Your task to perform on an android device: move an email to a new category in the gmail app Image 0: 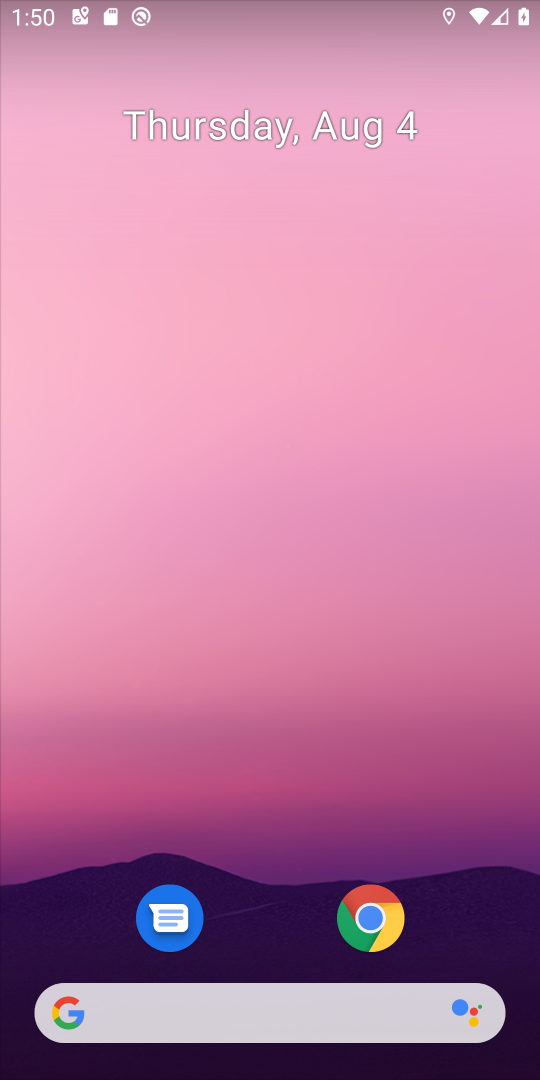
Step 0: drag from (298, 857) to (306, 305)
Your task to perform on an android device: move an email to a new category in the gmail app Image 1: 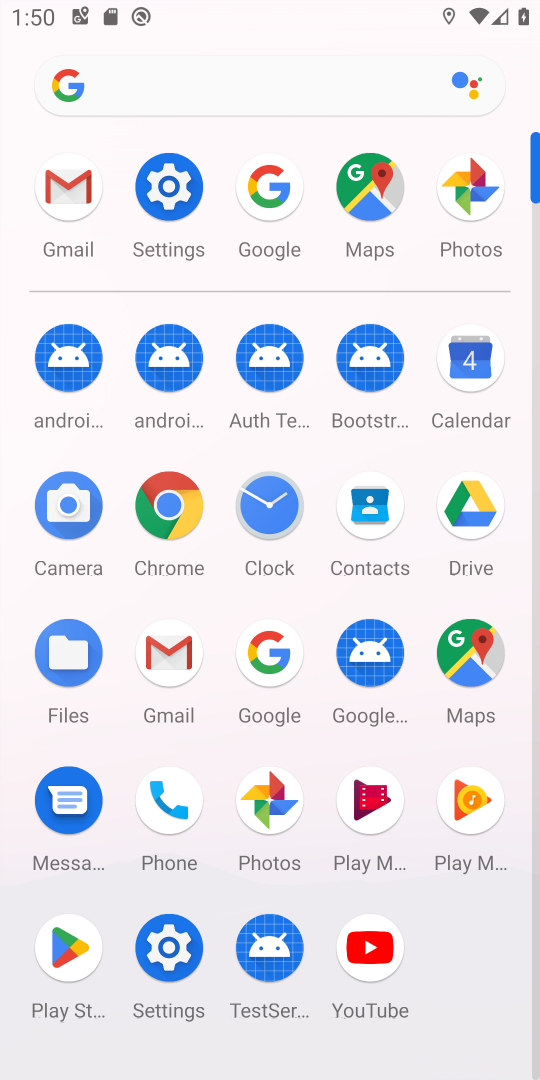
Step 1: click (67, 205)
Your task to perform on an android device: move an email to a new category in the gmail app Image 2: 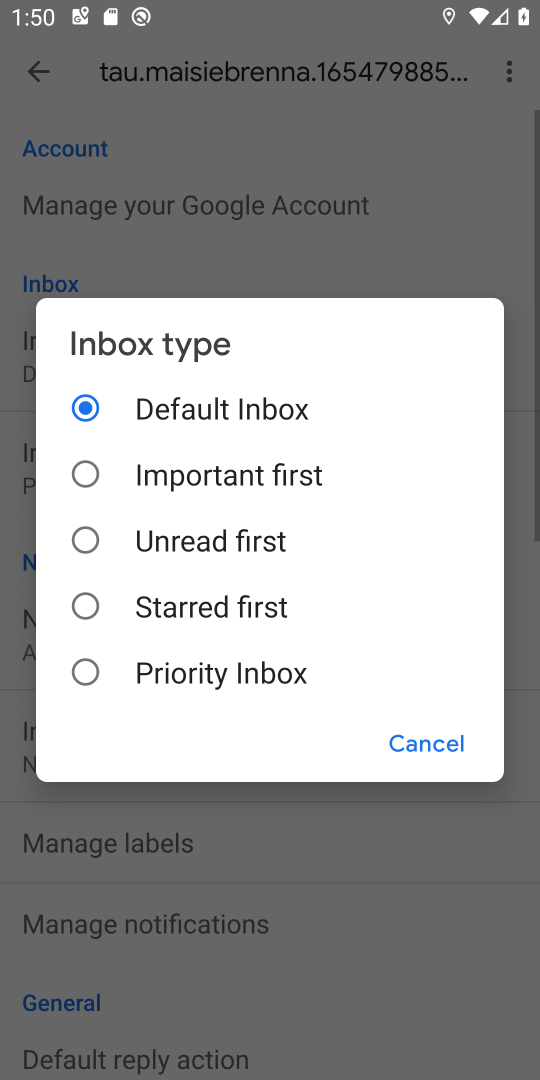
Step 2: click (413, 731)
Your task to perform on an android device: move an email to a new category in the gmail app Image 3: 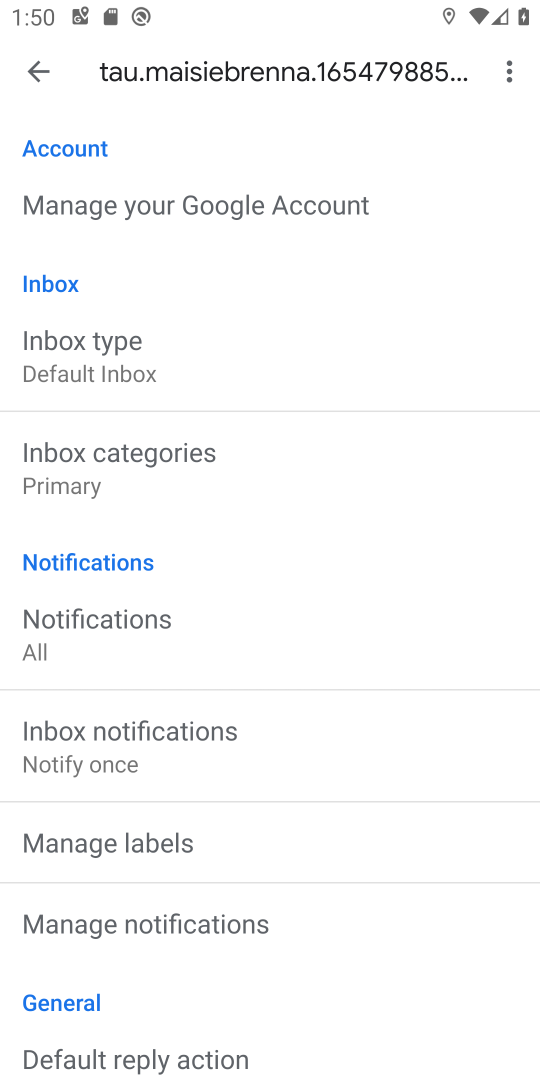
Step 3: click (32, 53)
Your task to perform on an android device: move an email to a new category in the gmail app Image 4: 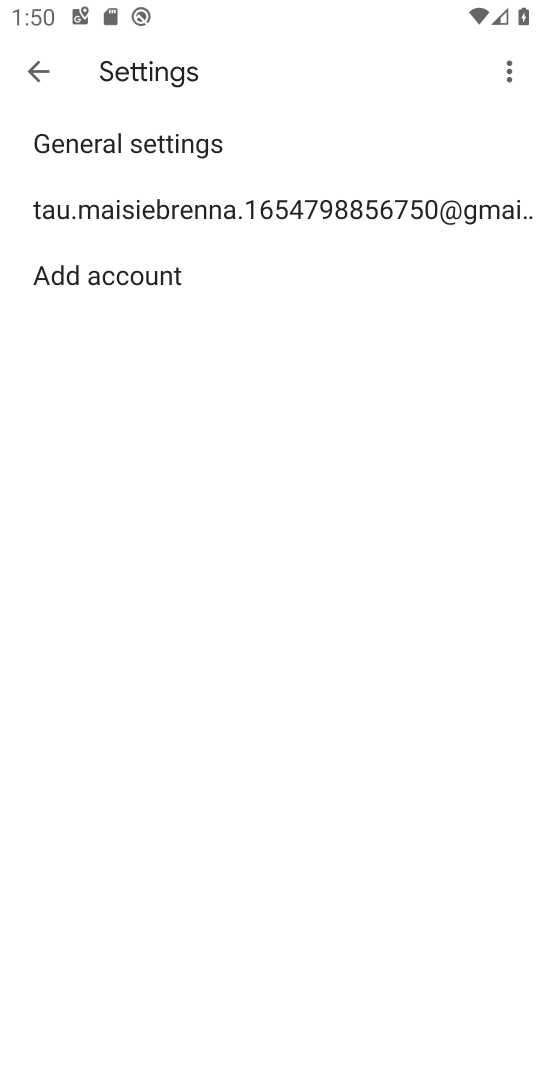
Step 4: click (51, 71)
Your task to perform on an android device: move an email to a new category in the gmail app Image 5: 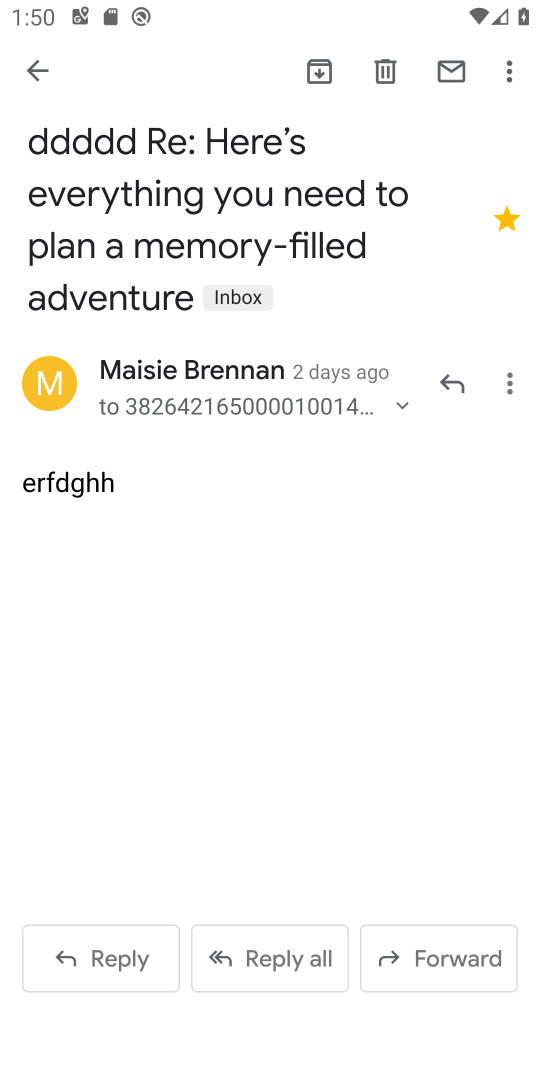
Step 5: click (503, 67)
Your task to perform on an android device: move an email to a new category in the gmail app Image 6: 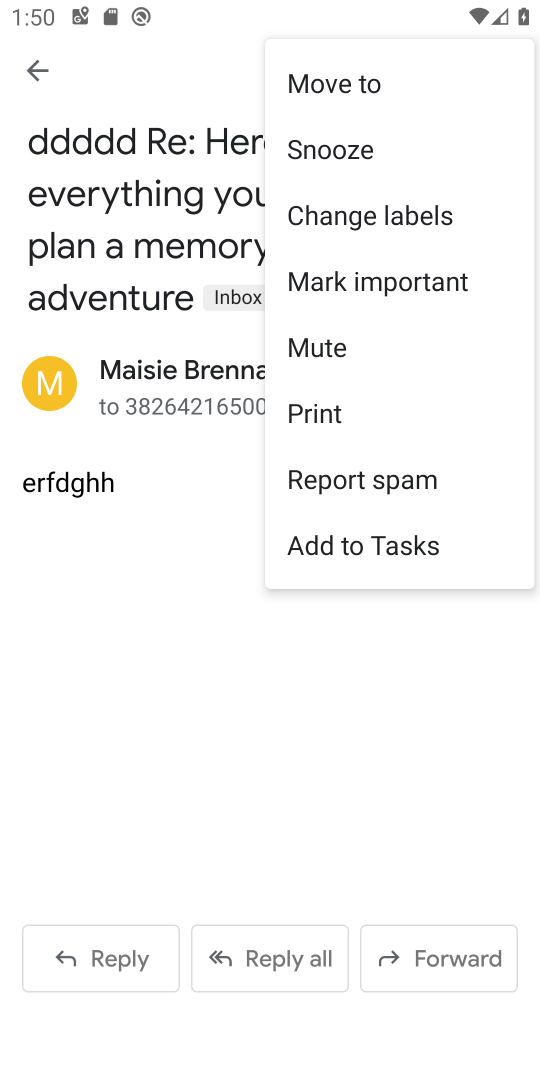
Step 6: click (349, 92)
Your task to perform on an android device: move an email to a new category in the gmail app Image 7: 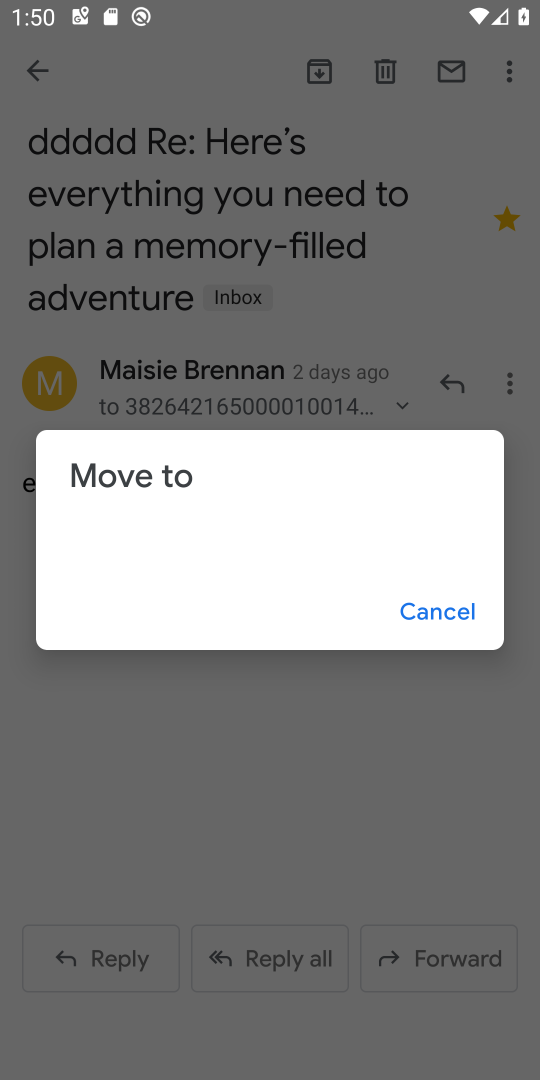
Step 7: click (435, 591)
Your task to perform on an android device: move an email to a new category in the gmail app Image 8: 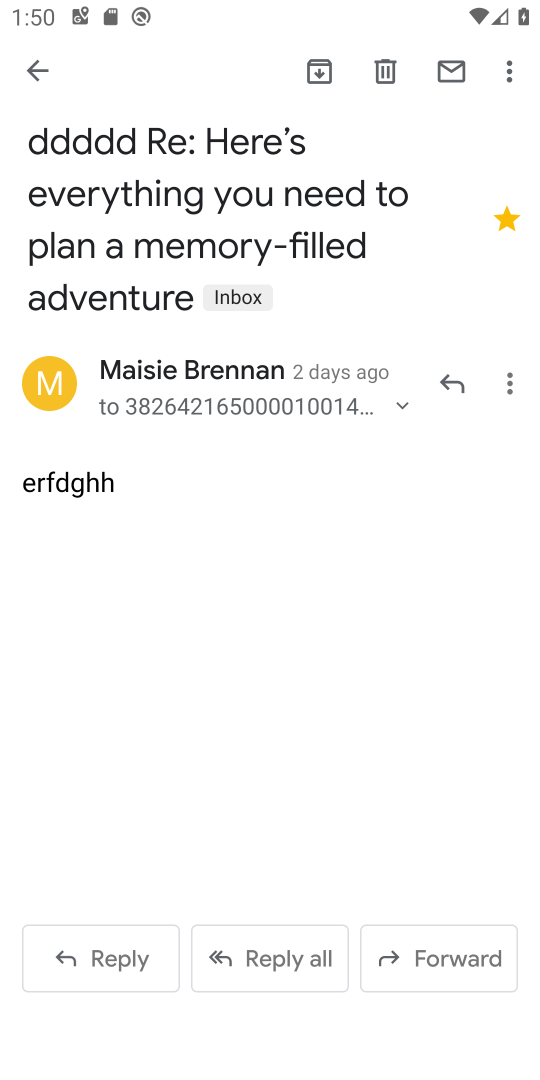
Step 8: task complete